Your task to perform on an android device: Open the web browser Image 0: 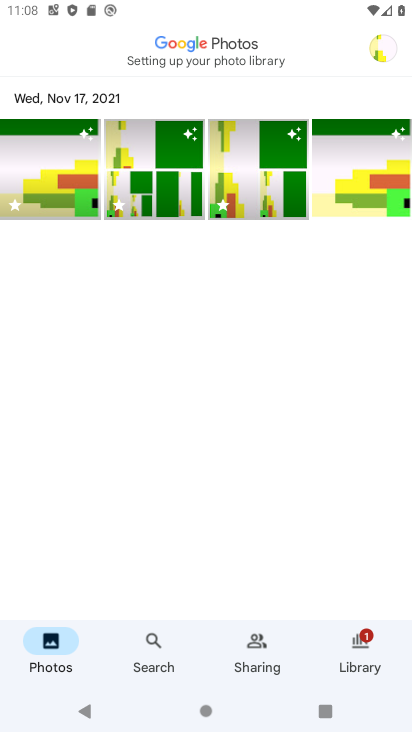
Step 0: press back button
Your task to perform on an android device: Open the web browser Image 1: 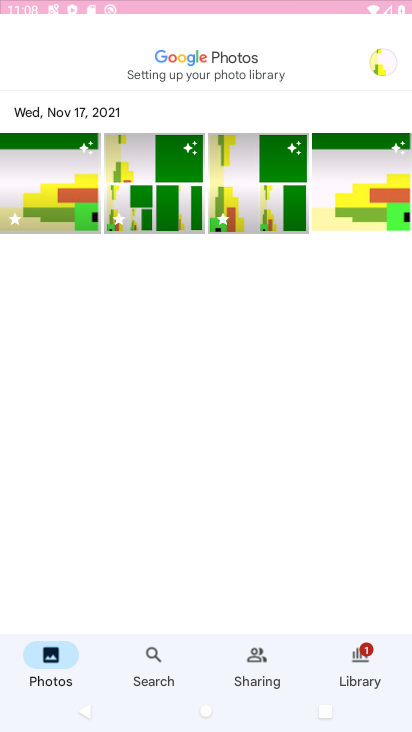
Step 1: press back button
Your task to perform on an android device: Open the web browser Image 2: 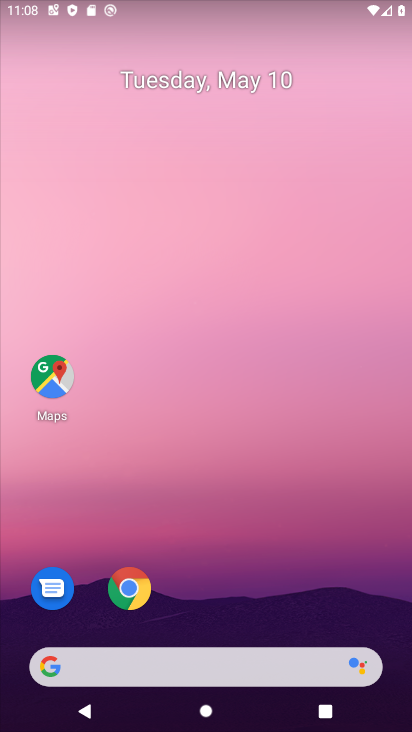
Step 2: drag from (292, 641) to (134, 139)
Your task to perform on an android device: Open the web browser Image 3: 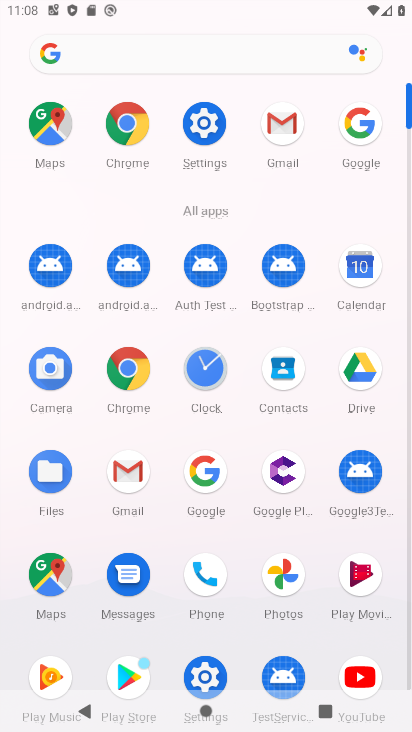
Step 3: click (119, 113)
Your task to perform on an android device: Open the web browser Image 4: 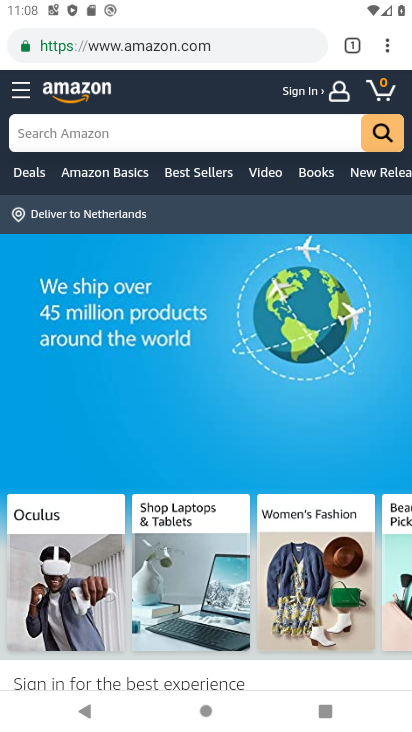
Step 4: task complete